Your task to perform on an android device: Open ESPN.com Image 0: 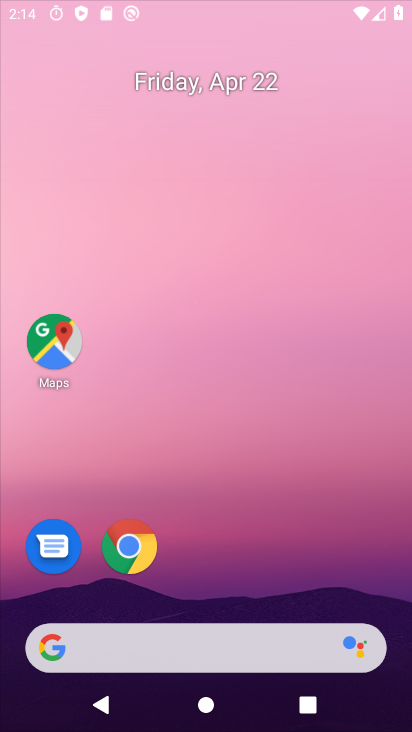
Step 0: click (213, 119)
Your task to perform on an android device: Open ESPN.com Image 1: 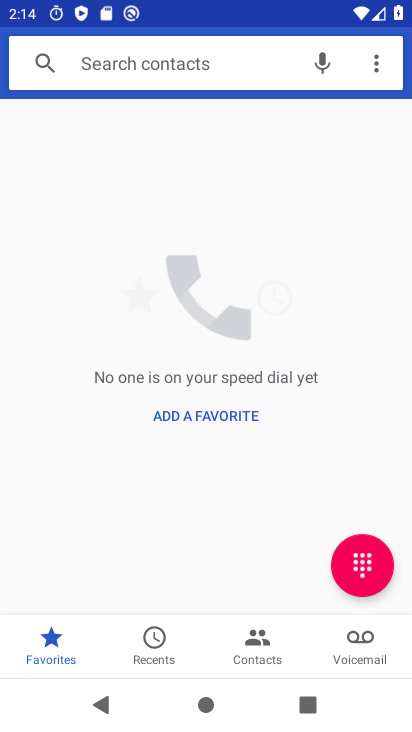
Step 1: press home button
Your task to perform on an android device: Open ESPN.com Image 2: 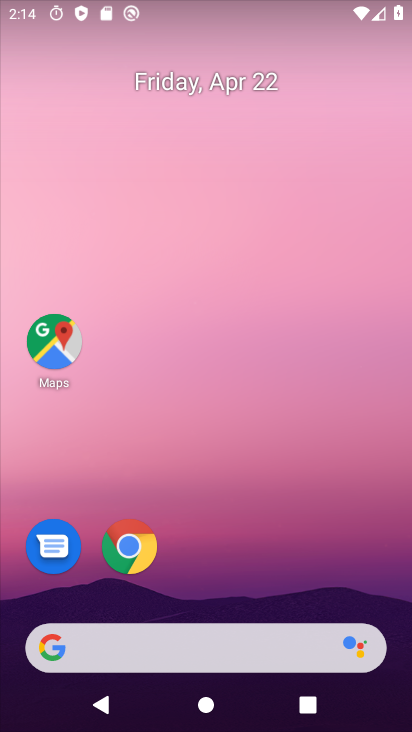
Step 2: click (211, 648)
Your task to perform on an android device: Open ESPN.com Image 3: 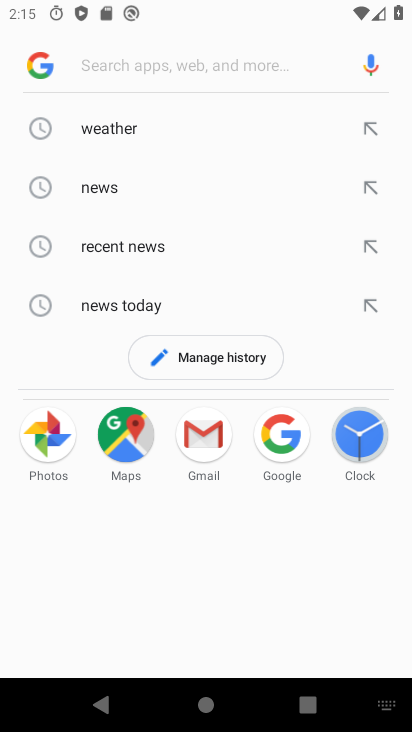
Step 3: drag from (185, 283) to (220, 95)
Your task to perform on an android device: Open ESPN.com Image 4: 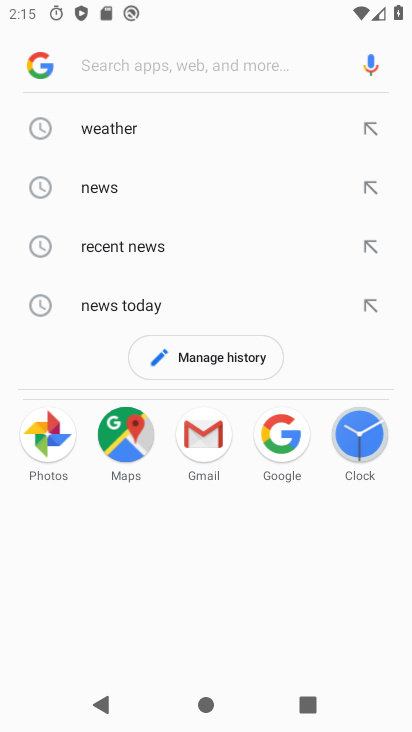
Step 4: click (145, 58)
Your task to perform on an android device: Open ESPN.com Image 5: 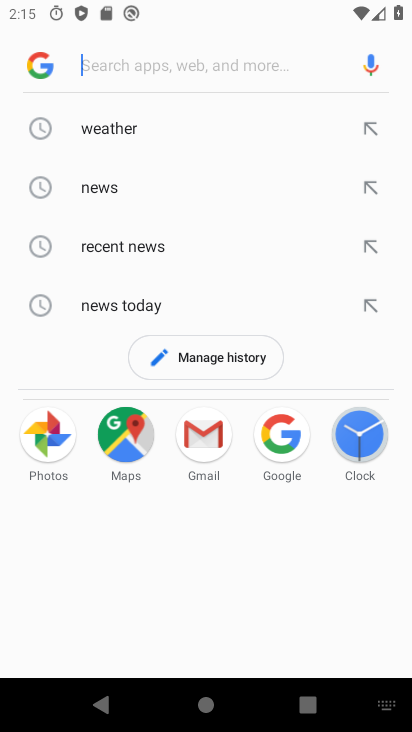
Step 5: type "espn.com"
Your task to perform on an android device: Open ESPN.com Image 6: 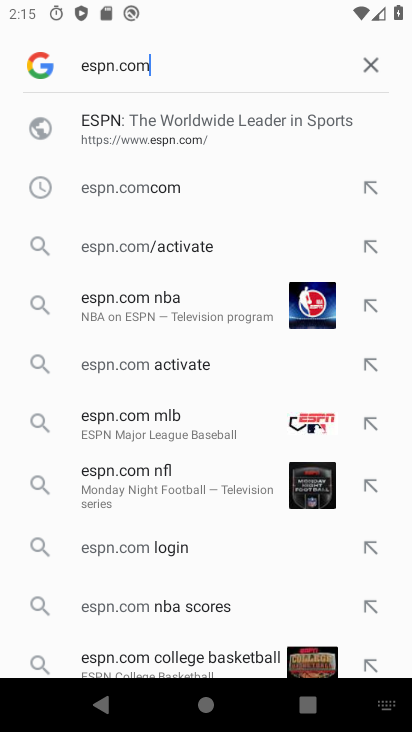
Step 6: click (173, 126)
Your task to perform on an android device: Open ESPN.com Image 7: 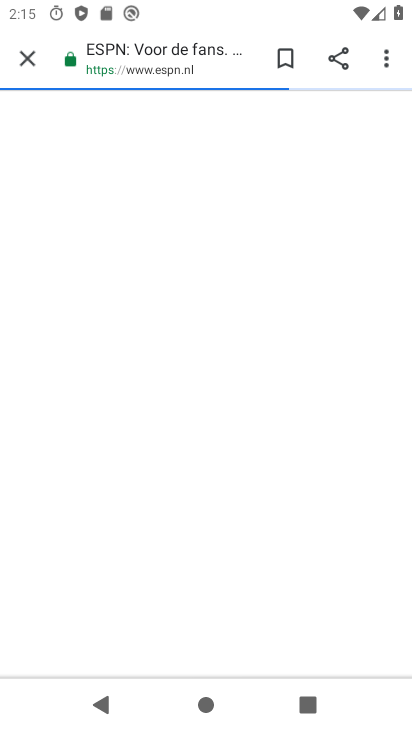
Step 7: task complete